Your task to perform on an android device: change notification settings in the gmail app Image 0: 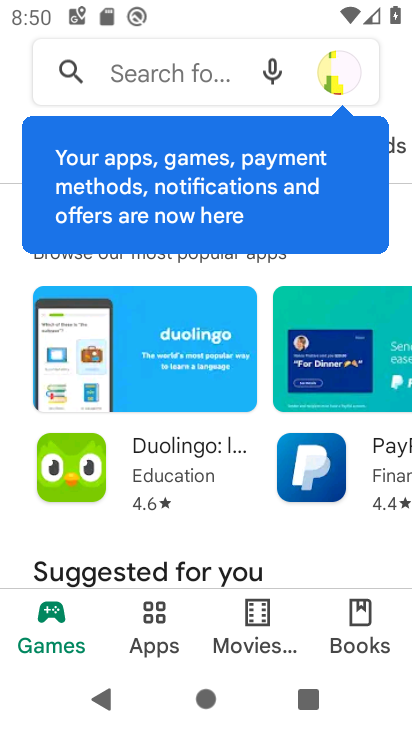
Step 0: press home button
Your task to perform on an android device: change notification settings in the gmail app Image 1: 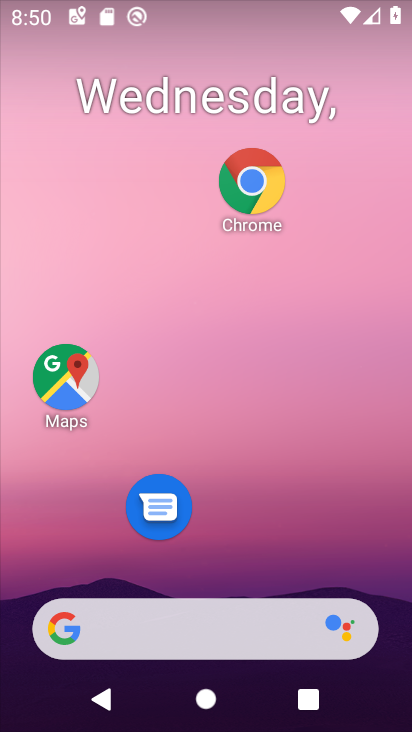
Step 1: drag from (260, 539) to (255, 107)
Your task to perform on an android device: change notification settings in the gmail app Image 2: 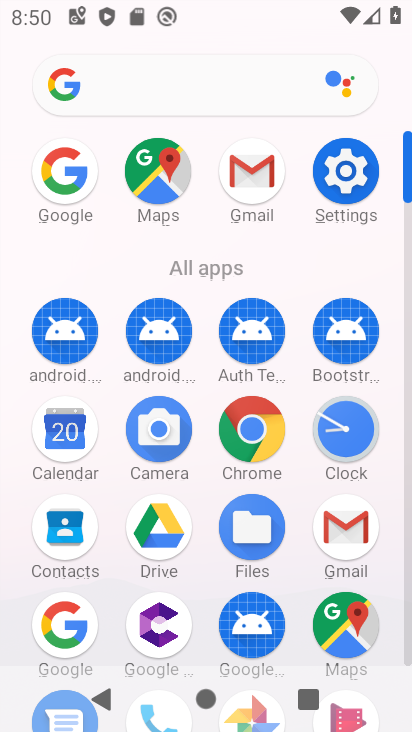
Step 2: click (347, 541)
Your task to perform on an android device: change notification settings in the gmail app Image 3: 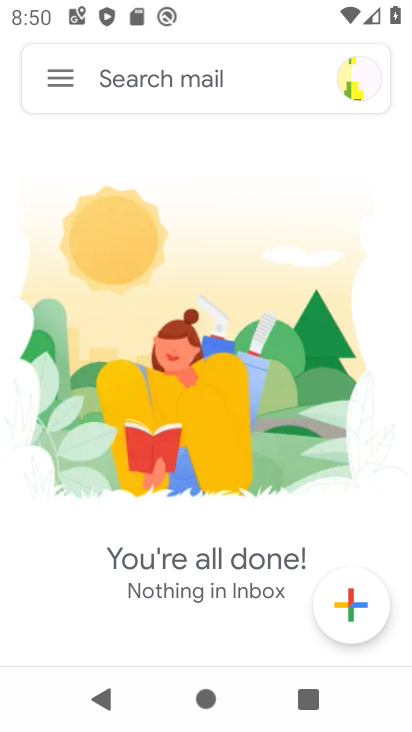
Step 3: click (64, 87)
Your task to perform on an android device: change notification settings in the gmail app Image 4: 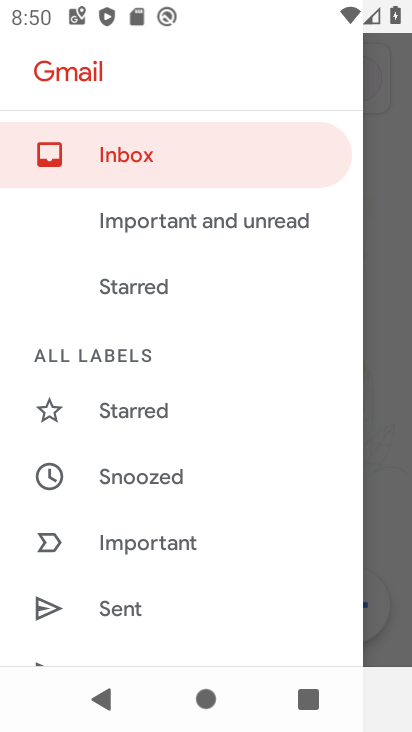
Step 4: drag from (144, 441) to (186, 184)
Your task to perform on an android device: change notification settings in the gmail app Image 5: 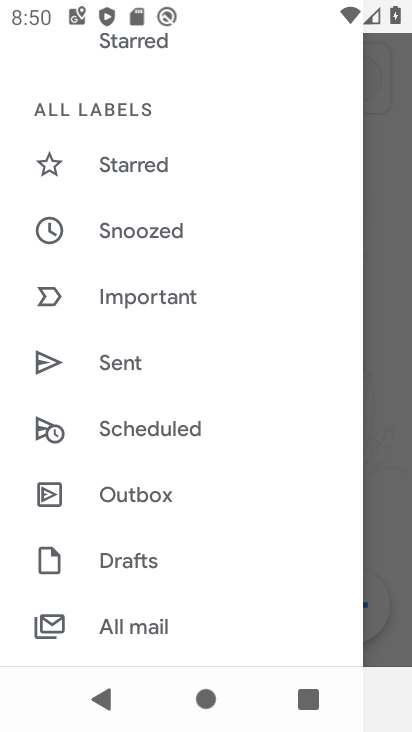
Step 5: drag from (171, 503) to (205, 220)
Your task to perform on an android device: change notification settings in the gmail app Image 6: 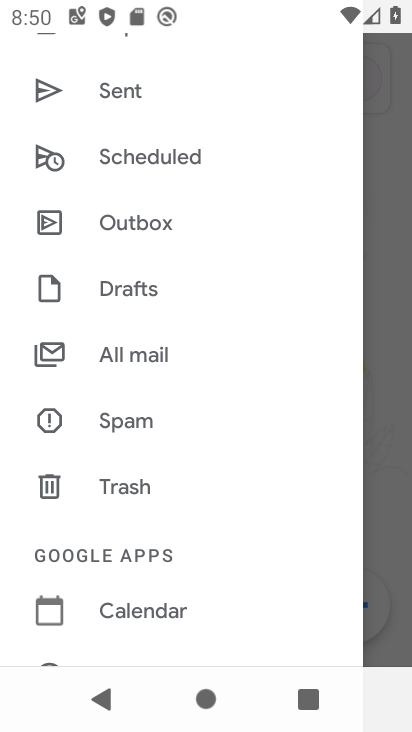
Step 6: drag from (148, 517) to (163, 97)
Your task to perform on an android device: change notification settings in the gmail app Image 7: 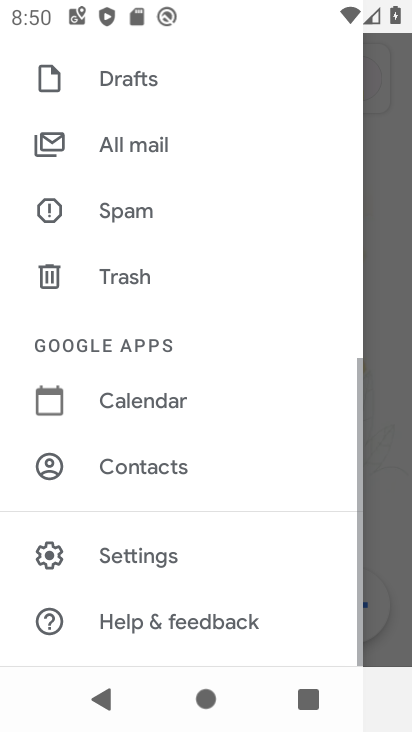
Step 7: click (148, 546)
Your task to perform on an android device: change notification settings in the gmail app Image 8: 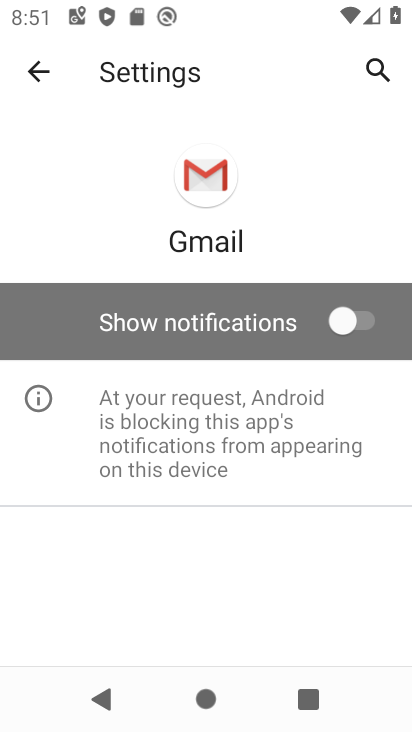
Step 8: click (363, 334)
Your task to perform on an android device: change notification settings in the gmail app Image 9: 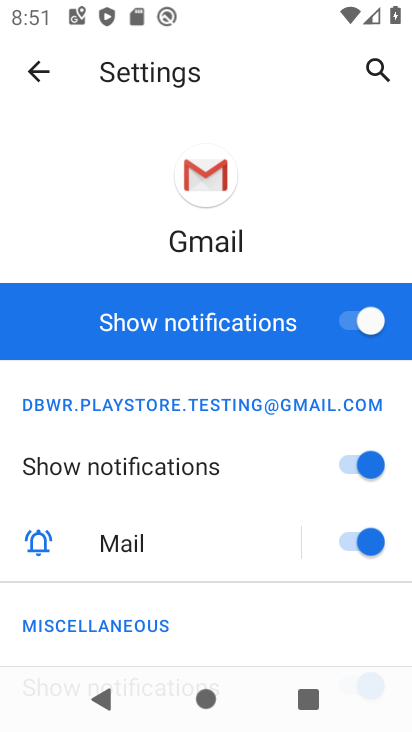
Step 9: task complete